Your task to perform on an android device: change timer sound Image 0: 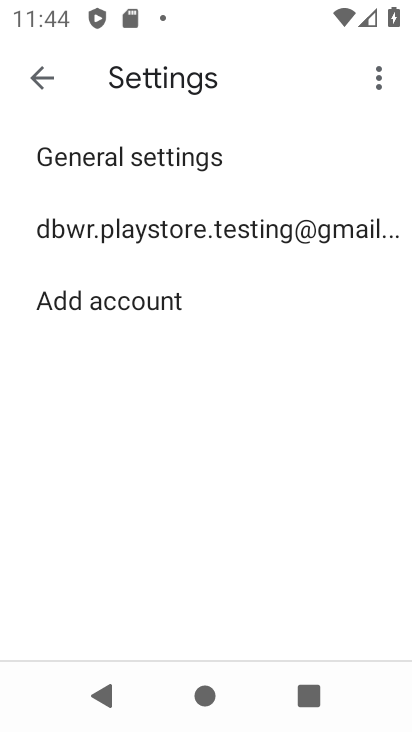
Step 0: press home button
Your task to perform on an android device: change timer sound Image 1: 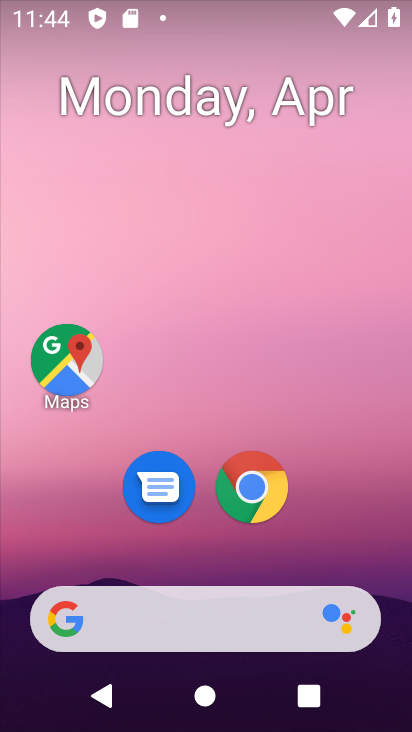
Step 1: drag from (377, 537) to (233, 173)
Your task to perform on an android device: change timer sound Image 2: 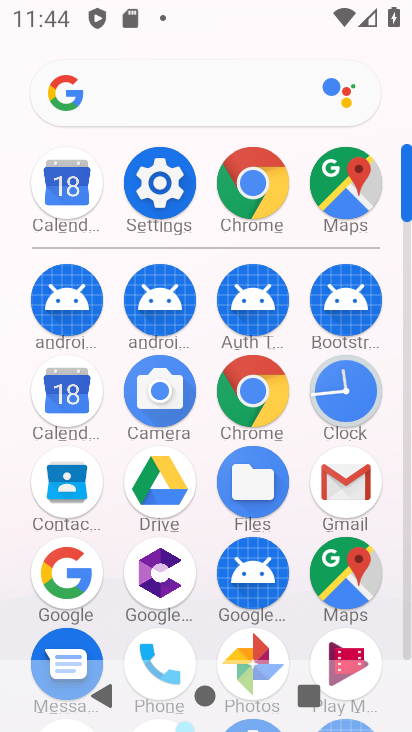
Step 2: click (354, 403)
Your task to perform on an android device: change timer sound Image 3: 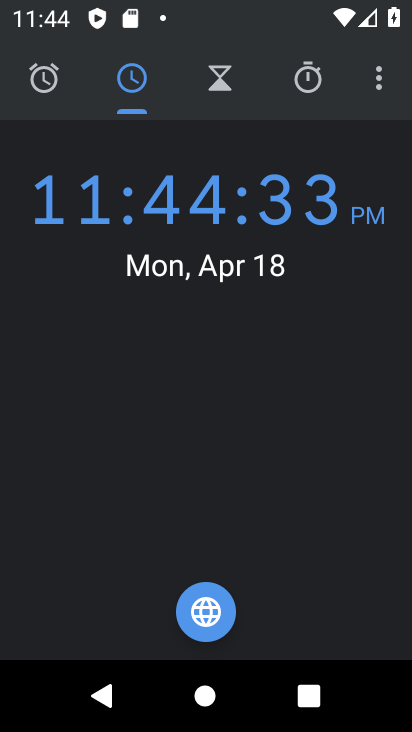
Step 3: click (388, 78)
Your task to perform on an android device: change timer sound Image 4: 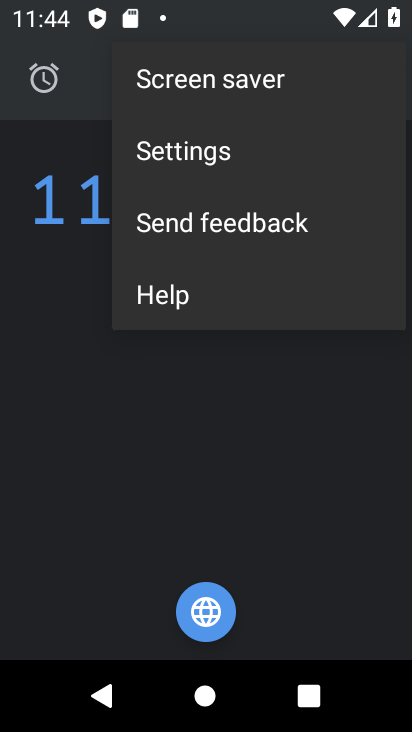
Step 4: click (304, 162)
Your task to perform on an android device: change timer sound Image 5: 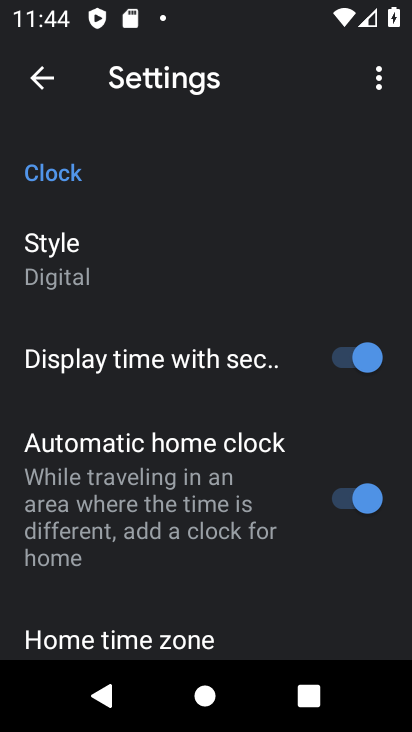
Step 5: drag from (274, 568) to (284, 150)
Your task to perform on an android device: change timer sound Image 6: 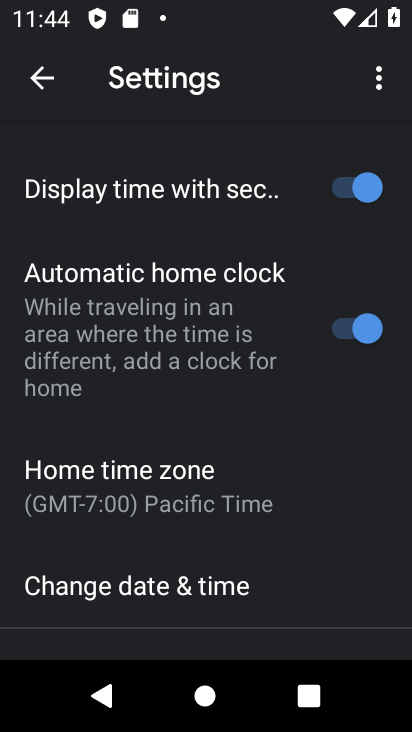
Step 6: drag from (284, 549) to (294, 99)
Your task to perform on an android device: change timer sound Image 7: 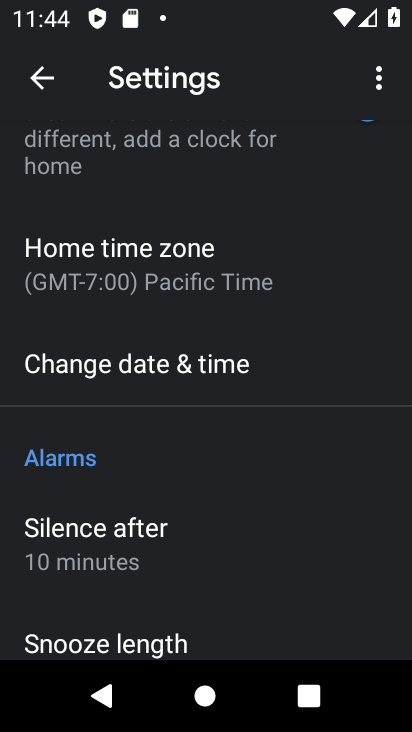
Step 7: drag from (295, 534) to (270, 152)
Your task to perform on an android device: change timer sound Image 8: 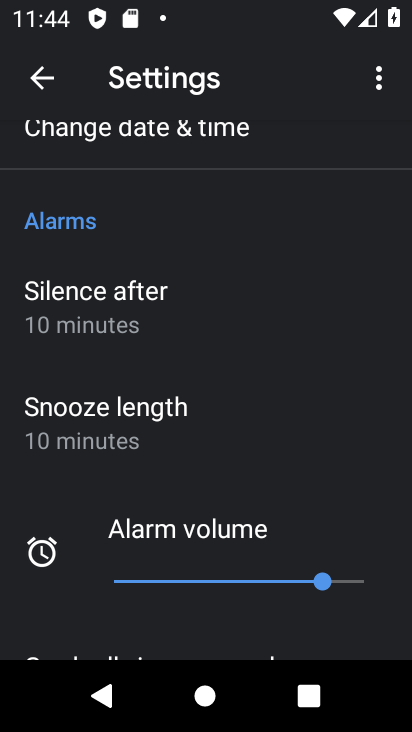
Step 8: drag from (310, 445) to (308, 163)
Your task to perform on an android device: change timer sound Image 9: 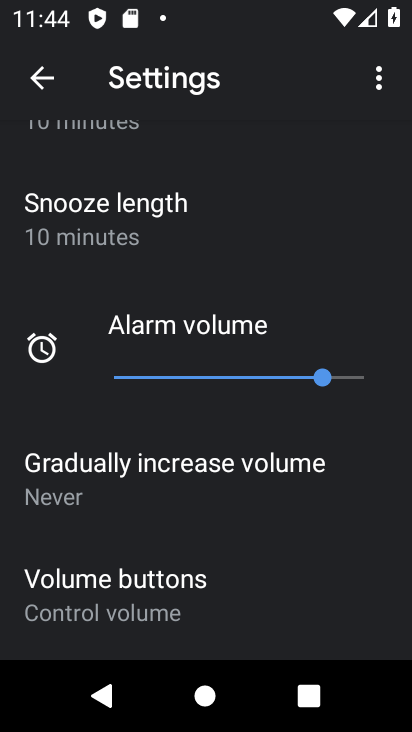
Step 9: drag from (292, 622) to (304, 279)
Your task to perform on an android device: change timer sound Image 10: 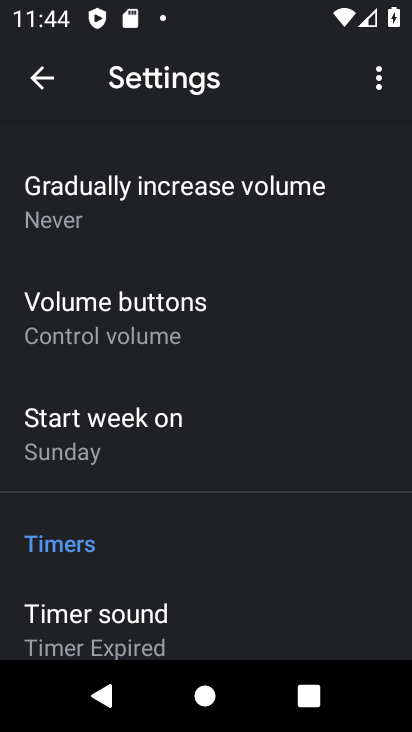
Step 10: drag from (298, 553) to (291, 367)
Your task to perform on an android device: change timer sound Image 11: 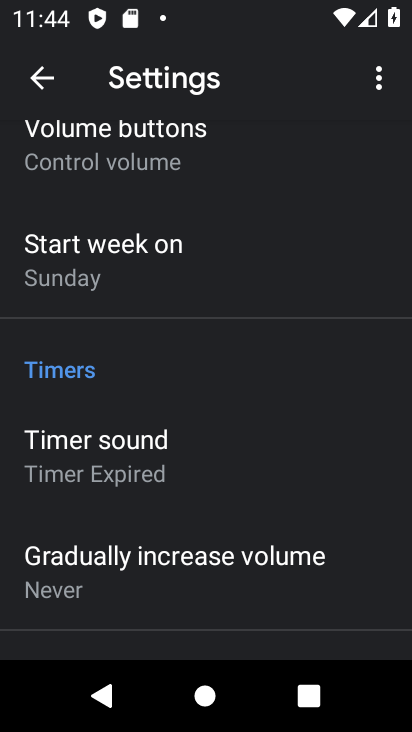
Step 11: click (275, 432)
Your task to perform on an android device: change timer sound Image 12: 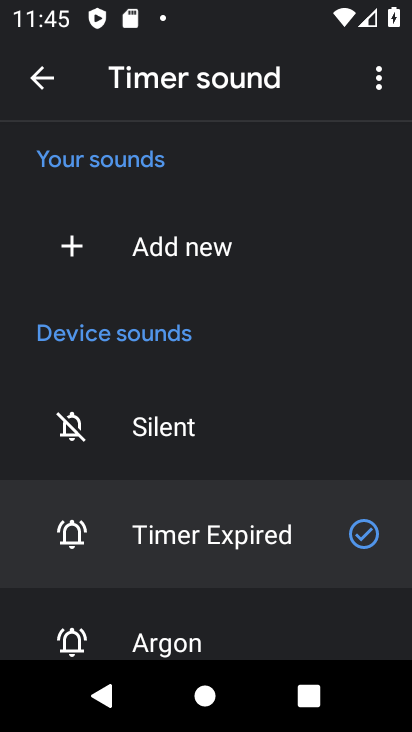
Step 12: click (273, 624)
Your task to perform on an android device: change timer sound Image 13: 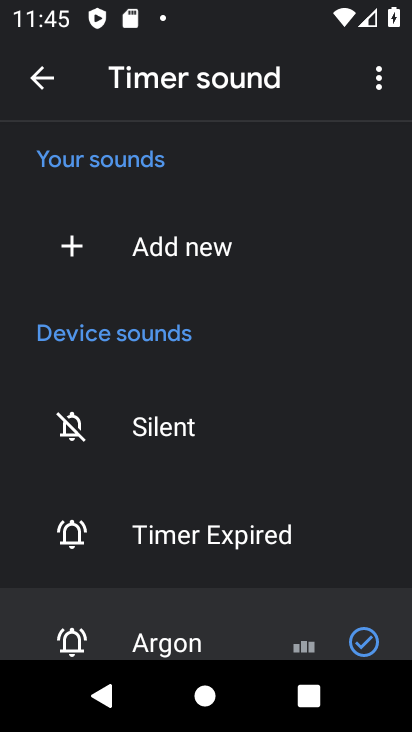
Step 13: task complete